Your task to perform on an android device: Go to calendar. Show me events next week Image 0: 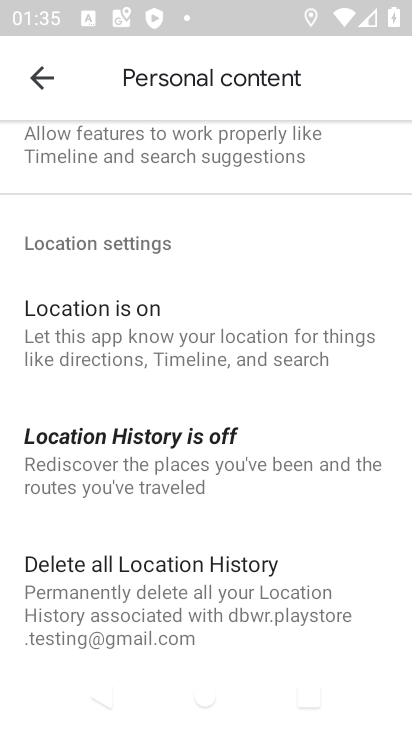
Step 0: press home button
Your task to perform on an android device: Go to calendar. Show me events next week Image 1: 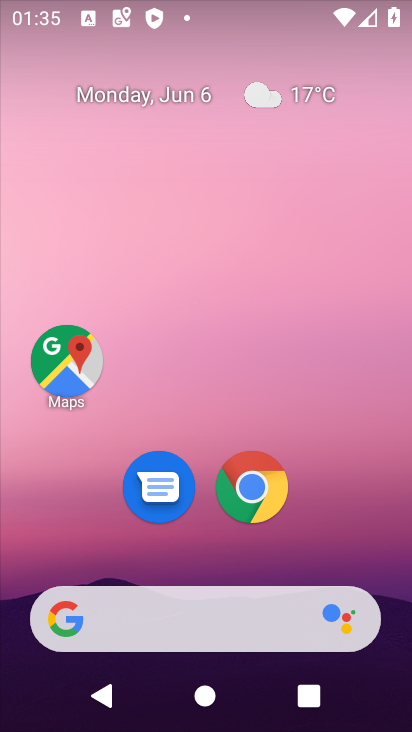
Step 1: drag from (348, 538) to (300, 24)
Your task to perform on an android device: Go to calendar. Show me events next week Image 2: 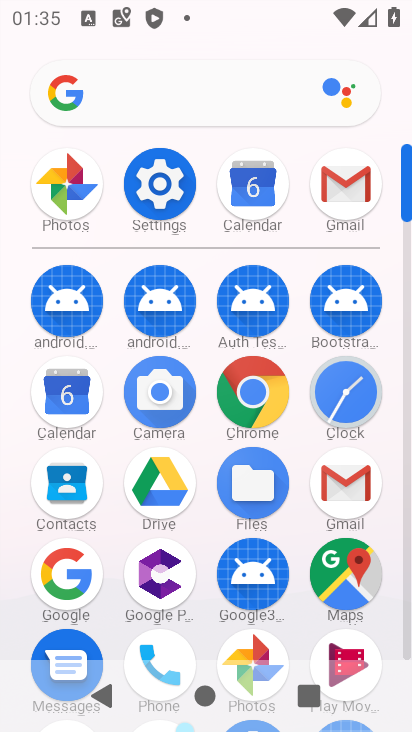
Step 2: click (59, 397)
Your task to perform on an android device: Go to calendar. Show me events next week Image 3: 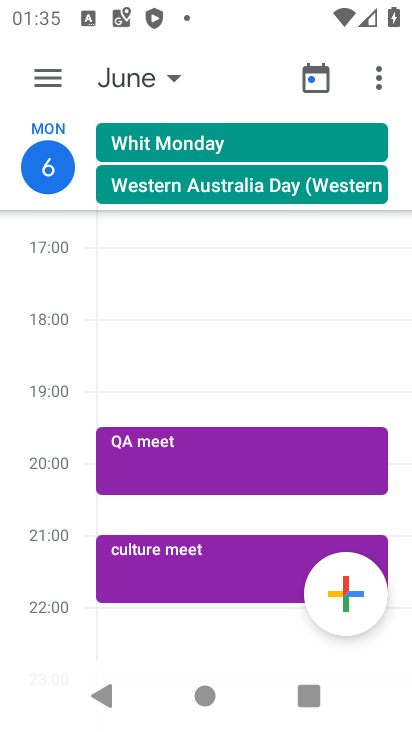
Step 3: click (54, 76)
Your task to perform on an android device: Go to calendar. Show me events next week Image 4: 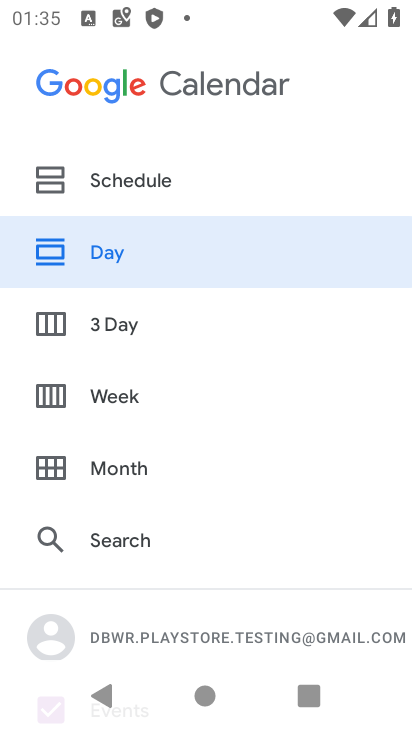
Step 4: click (119, 390)
Your task to perform on an android device: Go to calendar. Show me events next week Image 5: 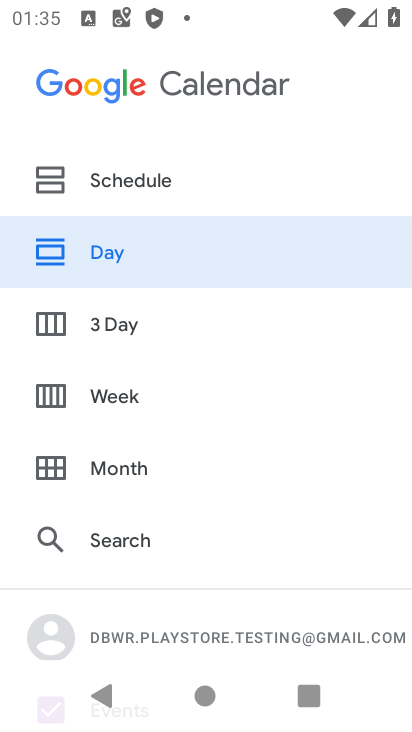
Step 5: click (116, 395)
Your task to perform on an android device: Go to calendar. Show me events next week Image 6: 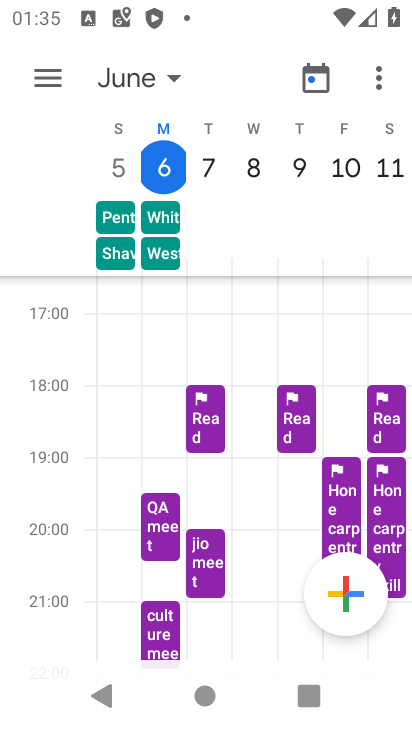
Step 6: task complete